Your task to perform on an android device: turn on bluetooth scan Image 0: 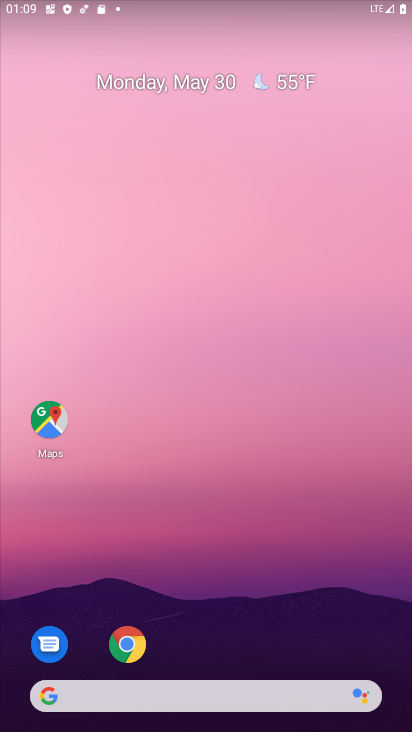
Step 0: drag from (253, 579) to (268, 151)
Your task to perform on an android device: turn on bluetooth scan Image 1: 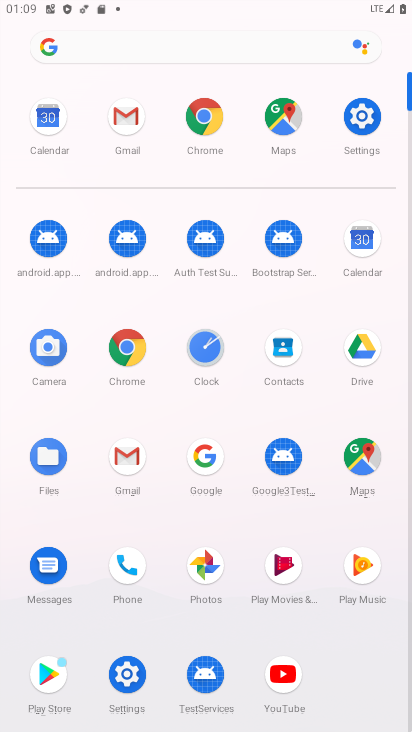
Step 1: click (363, 113)
Your task to perform on an android device: turn on bluetooth scan Image 2: 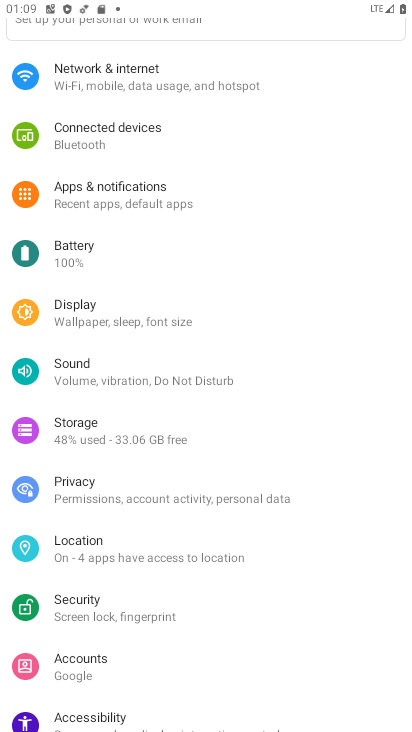
Step 2: click (139, 553)
Your task to perform on an android device: turn on bluetooth scan Image 3: 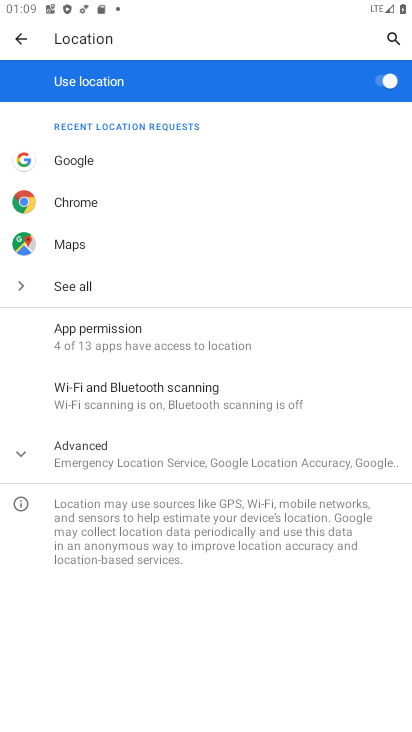
Step 3: click (216, 406)
Your task to perform on an android device: turn on bluetooth scan Image 4: 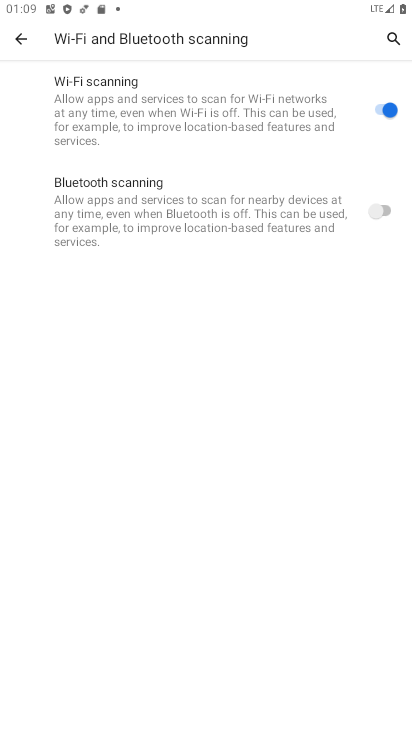
Step 4: click (390, 203)
Your task to perform on an android device: turn on bluetooth scan Image 5: 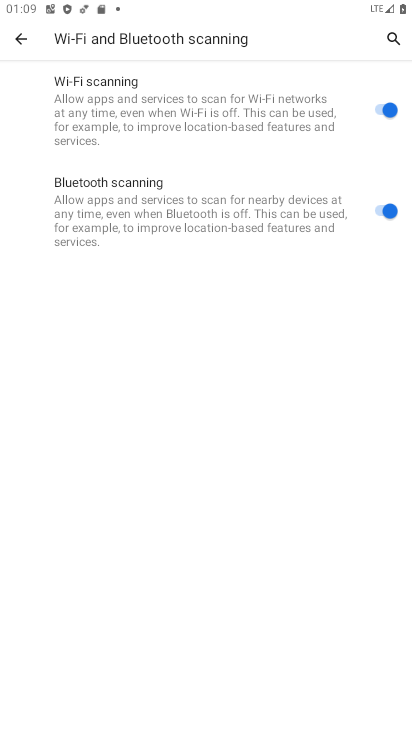
Step 5: task complete